Your task to perform on an android device: add a contact Image 0: 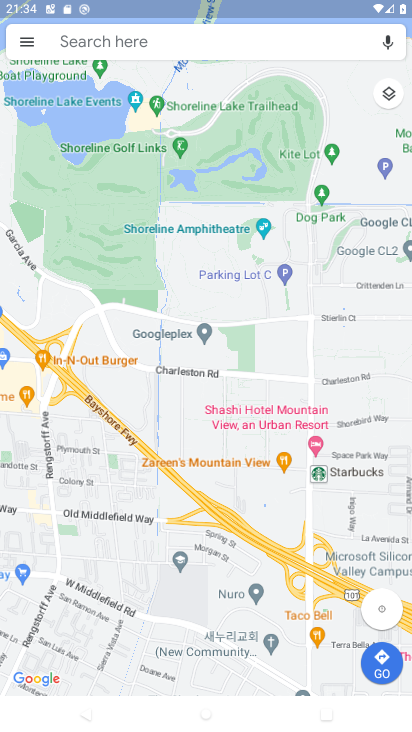
Step 0: press back button
Your task to perform on an android device: add a contact Image 1: 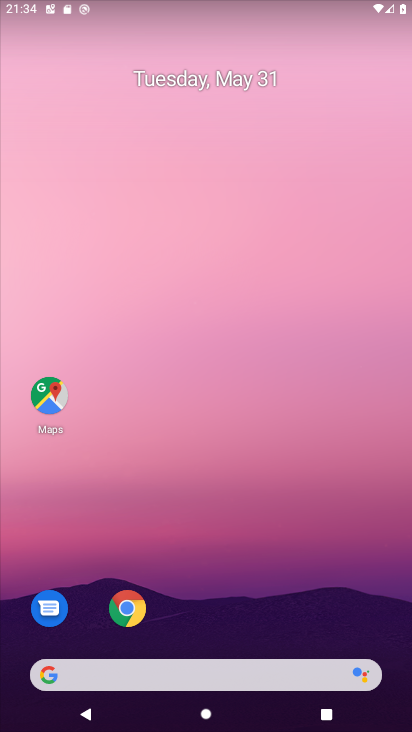
Step 1: drag from (229, 550) to (215, 152)
Your task to perform on an android device: add a contact Image 2: 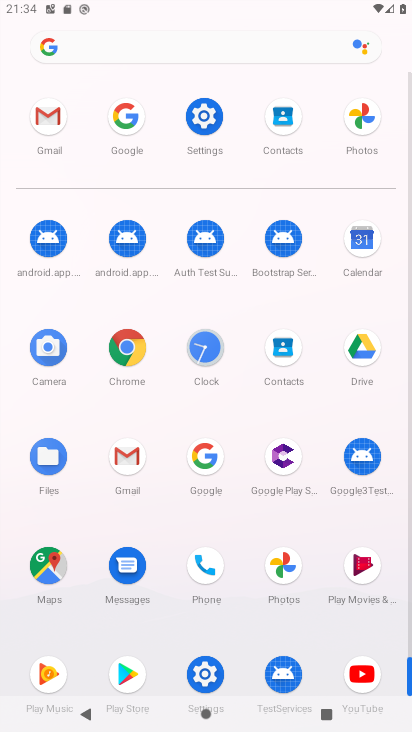
Step 2: click (281, 349)
Your task to perform on an android device: add a contact Image 3: 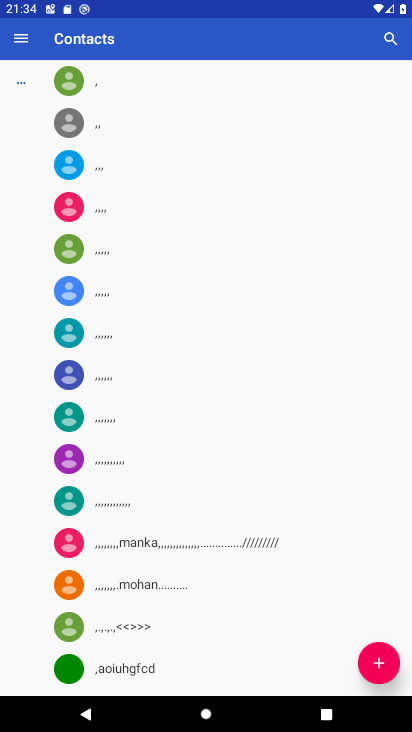
Step 3: click (383, 667)
Your task to perform on an android device: add a contact Image 4: 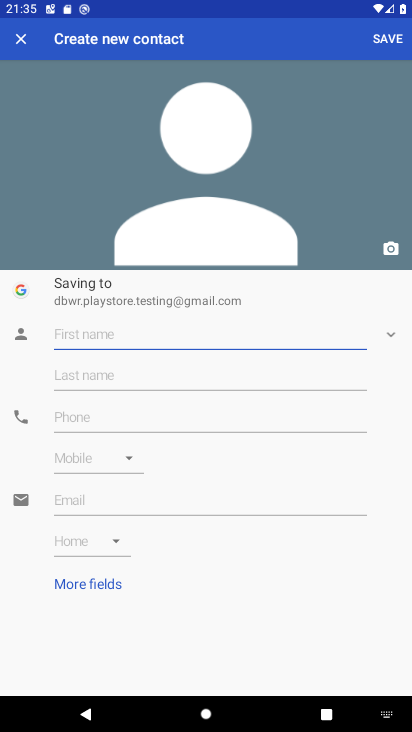
Step 4: type "Ashwani Kumar"
Your task to perform on an android device: add a contact Image 5: 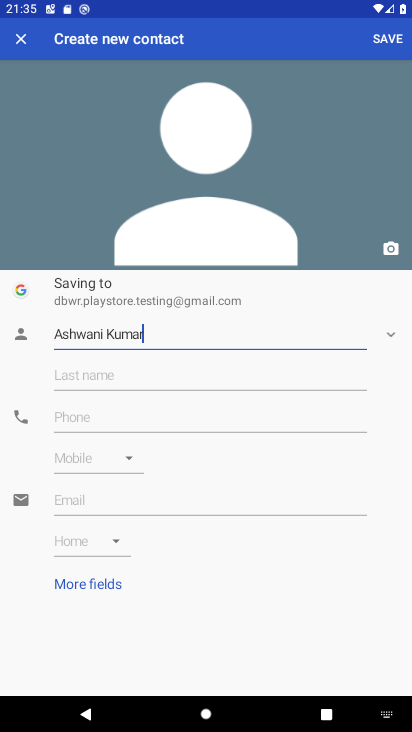
Step 5: click (193, 382)
Your task to perform on an android device: add a contact Image 6: 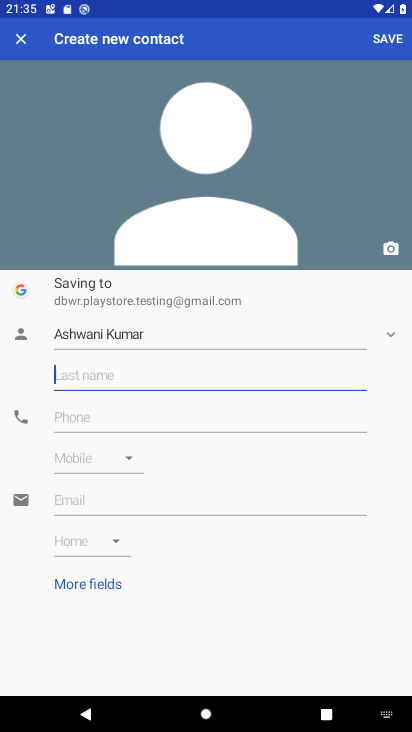
Step 6: type "Upadhyay"
Your task to perform on an android device: add a contact Image 7: 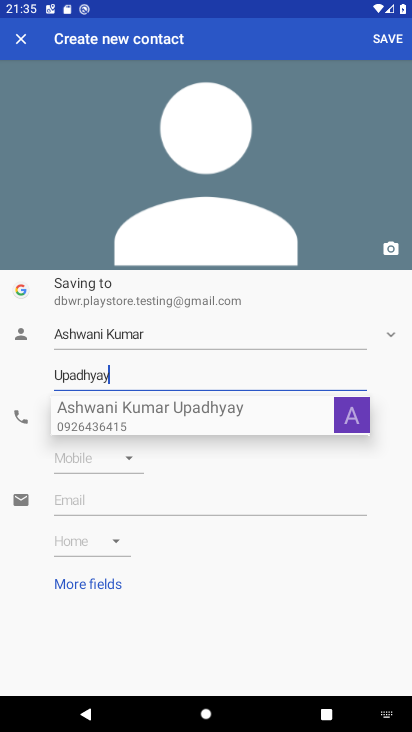
Step 7: click (130, 459)
Your task to perform on an android device: add a contact Image 8: 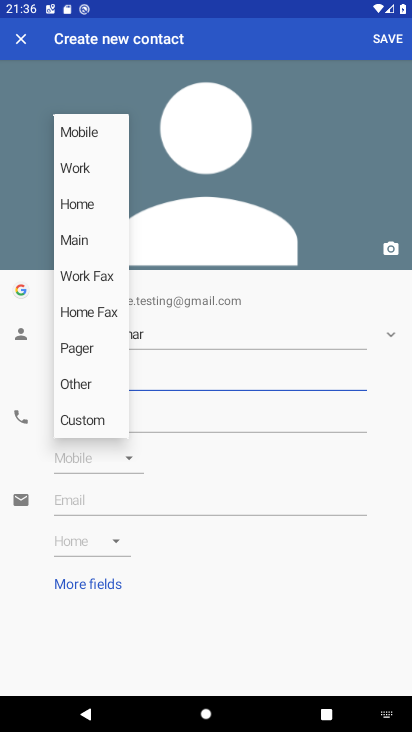
Step 8: click (78, 129)
Your task to perform on an android device: add a contact Image 9: 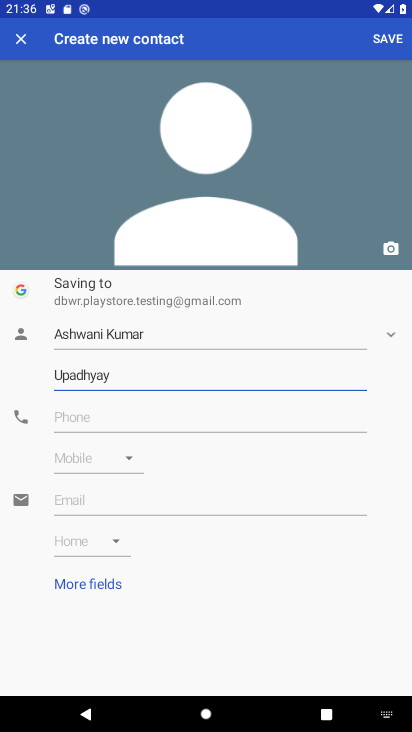
Step 9: click (95, 418)
Your task to perform on an android device: add a contact Image 10: 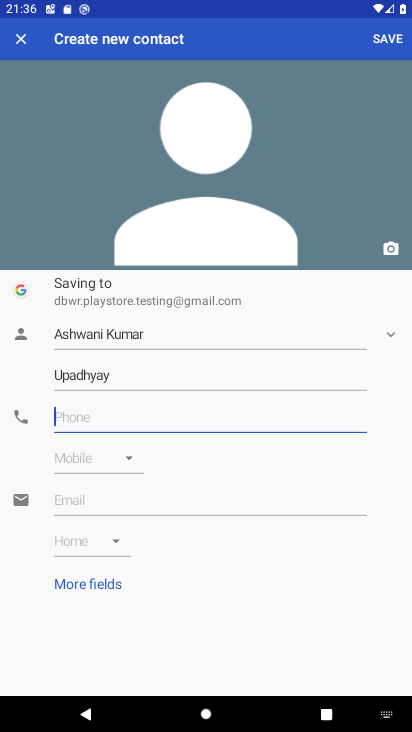
Step 10: type "0982763675"
Your task to perform on an android device: add a contact Image 11: 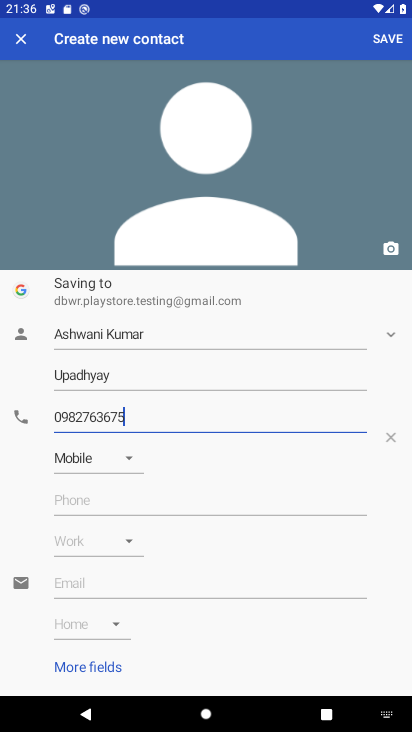
Step 11: click (381, 40)
Your task to perform on an android device: add a contact Image 12: 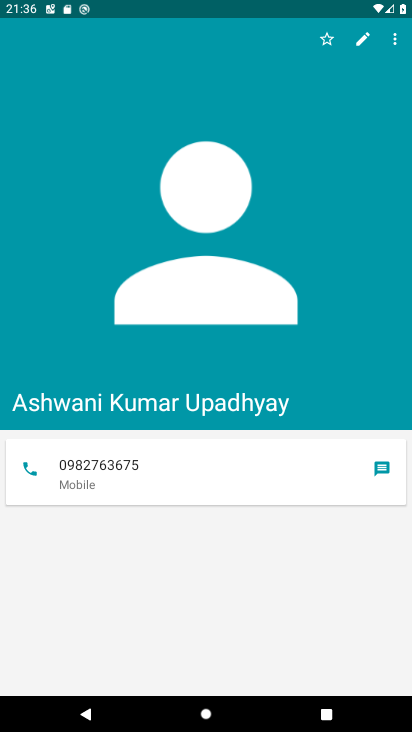
Step 12: task complete